Your task to perform on an android device: Go to Yahoo.com Image 0: 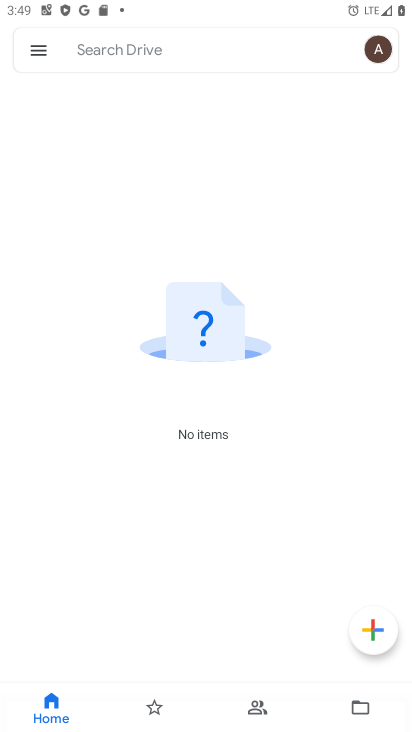
Step 0: press home button
Your task to perform on an android device: Go to Yahoo.com Image 1: 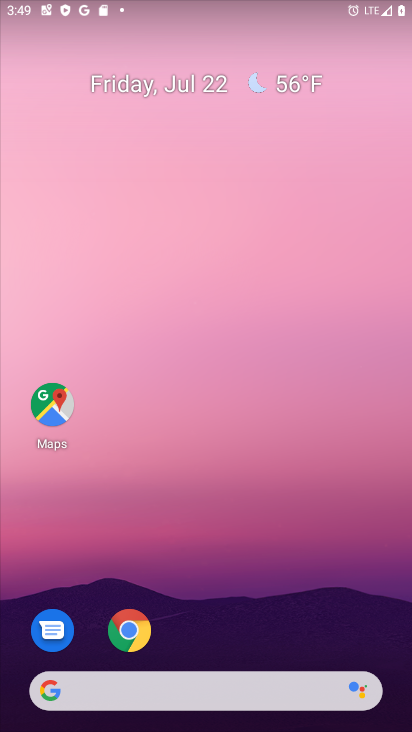
Step 1: drag from (226, 684) to (187, 133)
Your task to perform on an android device: Go to Yahoo.com Image 2: 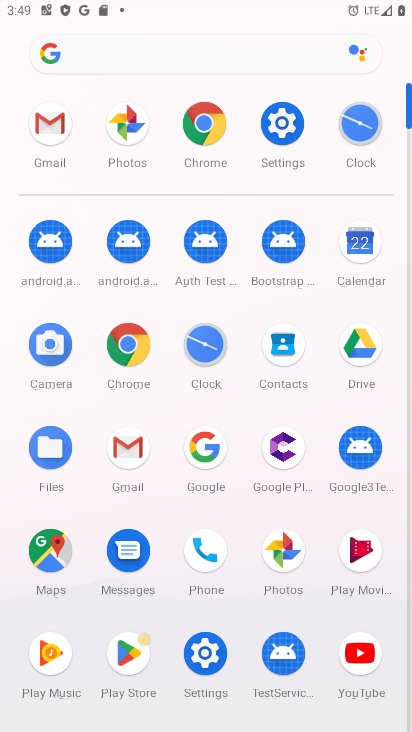
Step 2: click (140, 340)
Your task to perform on an android device: Go to Yahoo.com Image 3: 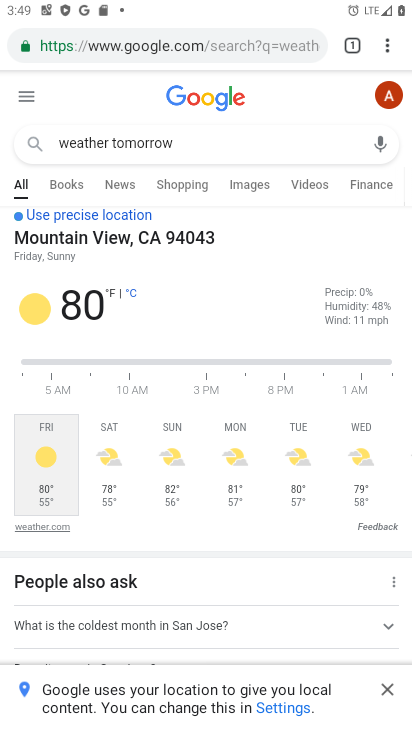
Step 3: click (203, 54)
Your task to perform on an android device: Go to Yahoo.com Image 4: 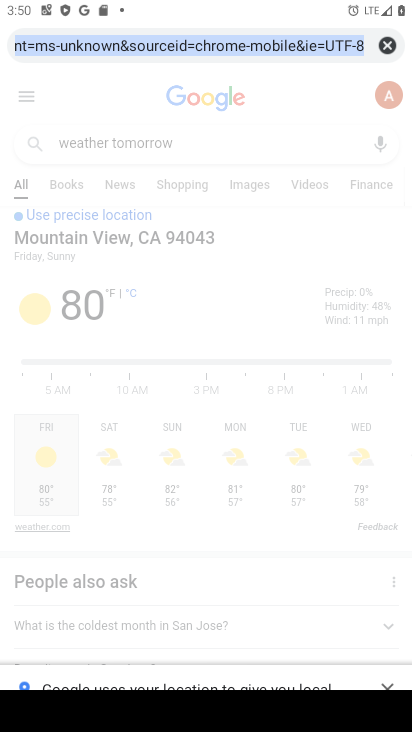
Step 4: type "yahoo.com"
Your task to perform on an android device: Go to Yahoo.com Image 5: 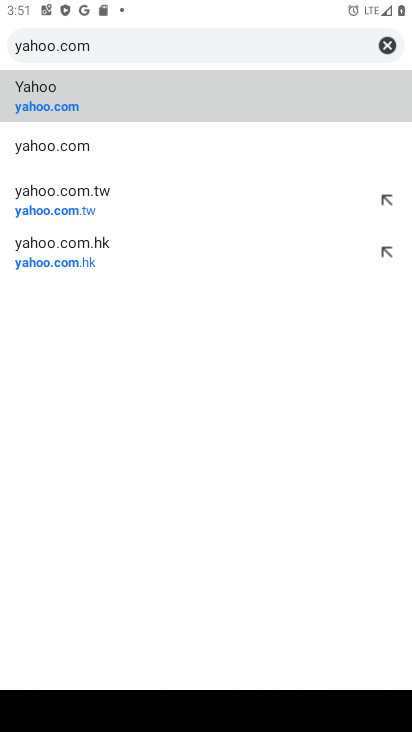
Step 5: click (91, 106)
Your task to perform on an android device: Go to Yahoo.com Image 6: 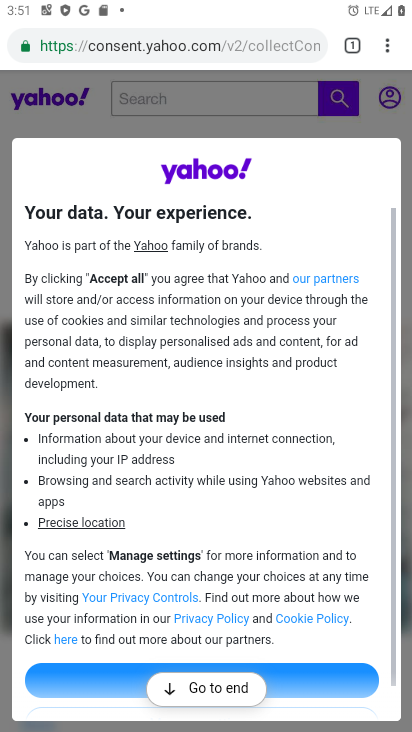
Step 6: task complete